Your task to perform on an android device: What's the weather? Image 0: 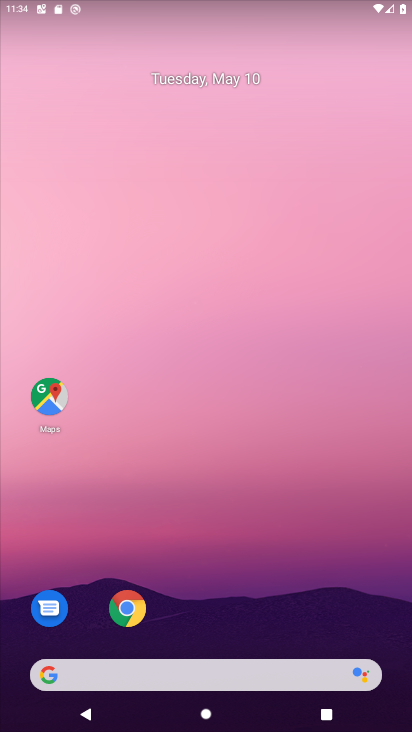
Step 0: drag from (217, 662) to (238, 193)
Your task to perform on an android device: What's the weather? Image 1: 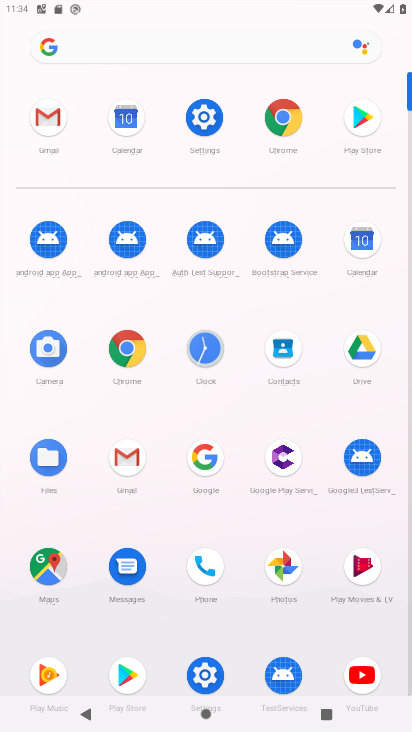
Step 1: press home button
Your task to perform on an android device: What's the weather? Image 2: 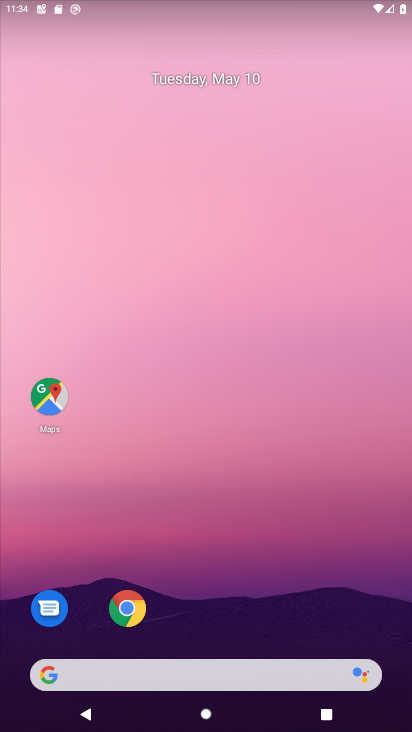
Step 2: drag from (25, 291) to (408, 297)
Your task to perform on an android device: What's the weather? Image 3: 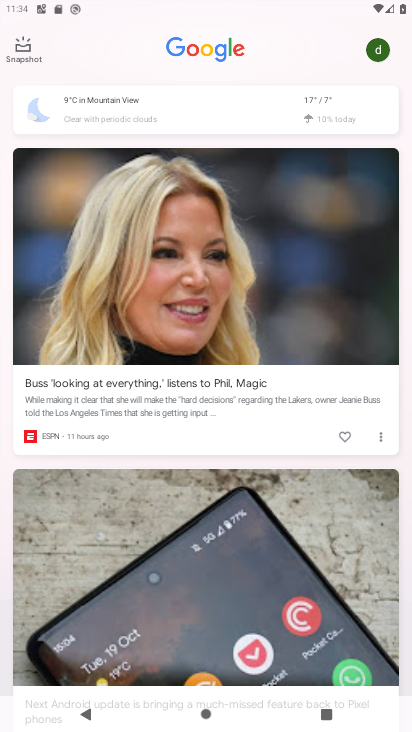
Step 3: click (36, 107)
Your task to perform on an android device: What's the weather? Image 4: 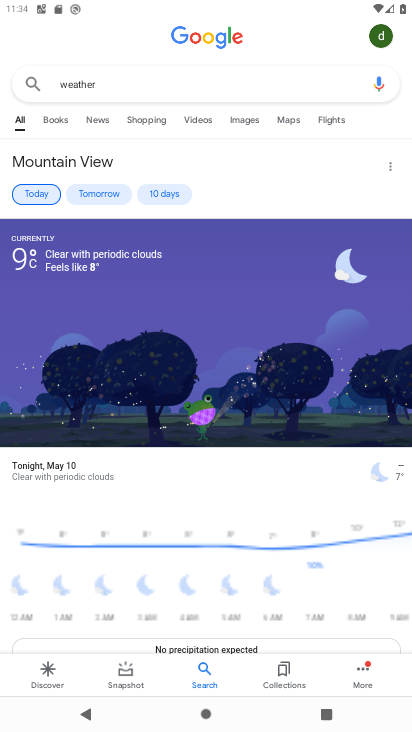
Step 4: task complete